Your task to perform on an android device: Go to Google Image 0: 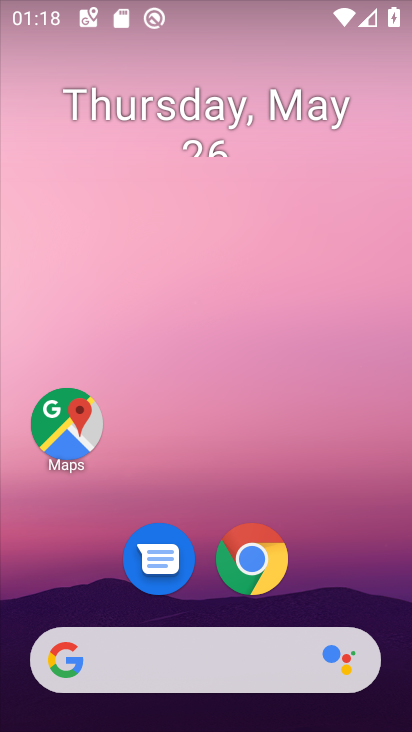
Step 0: drag from (366, 506) to (341, 155)
Your task to perform on an android device: Go to Google Image 1: 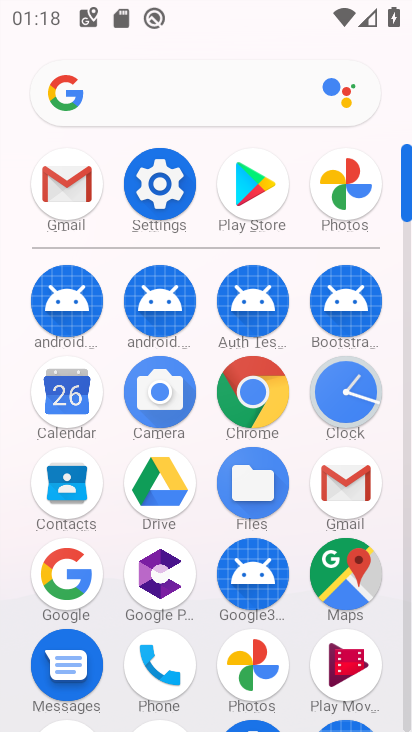
Step 1: click (51, 571)
Your task to perform on an android device: Go to Google Image 2: 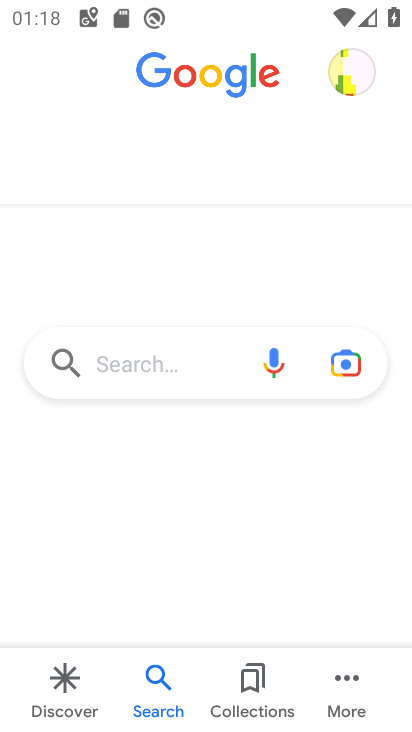
Step 2: task complete